Your task to perform on an android device: visit the assistant section in the google photos Image 0: 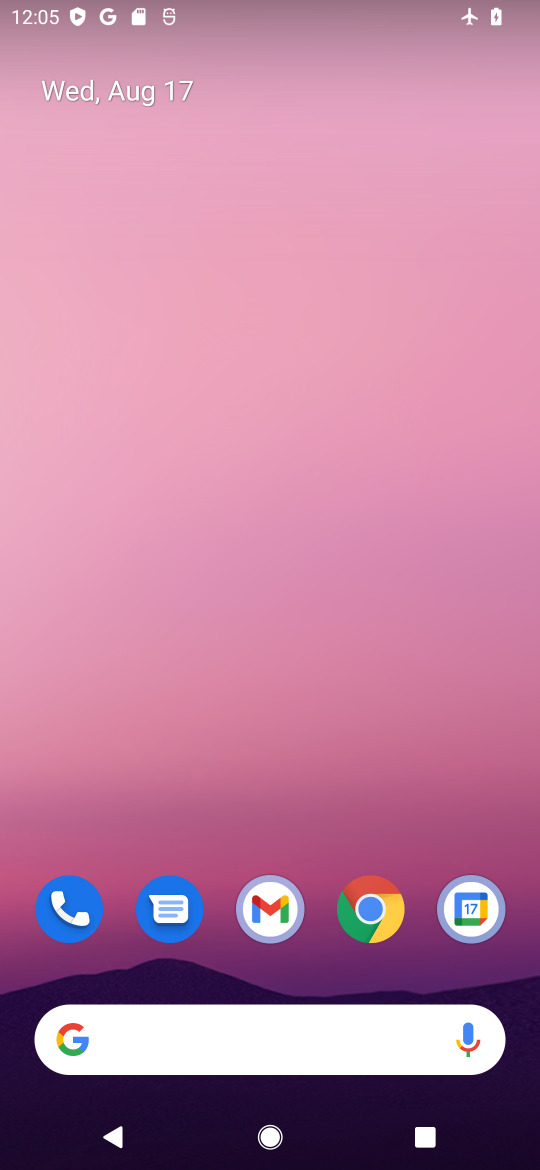
Step 0: drag from (282, 788) to (259, 185)
Your task to perform on an android device: visit the assistant section in the google photos Image 1: 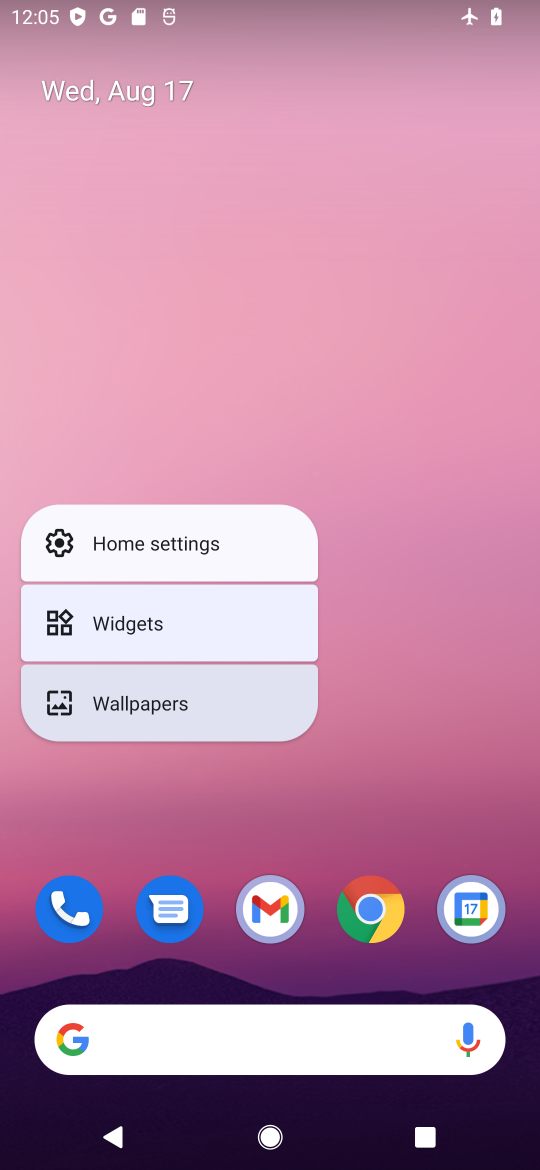
Step 1: drag from (330, 974) to (247, 291)
Your task to perform on an android device: visit the assistant section in the google photos Image 2: 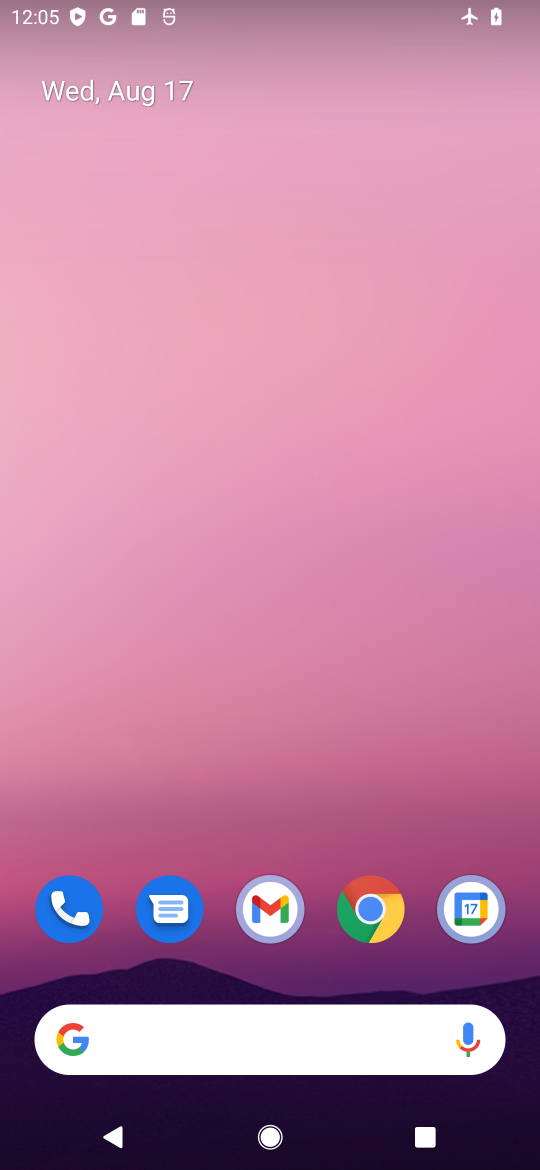
Step 2: drag from (308, 966) to (240, 393)
Your task to perform on an android device: visit the assistant section in the google photos Image 3: 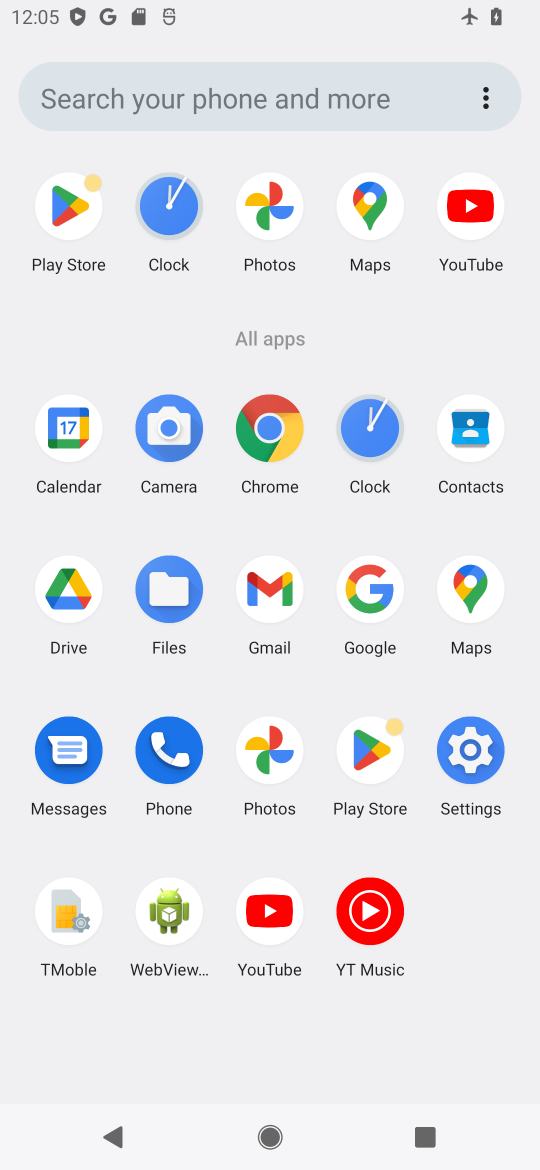
Step 3: click (274, 208)
Your task to perform on an android device: visit the assistant section in the google photos Image 4: 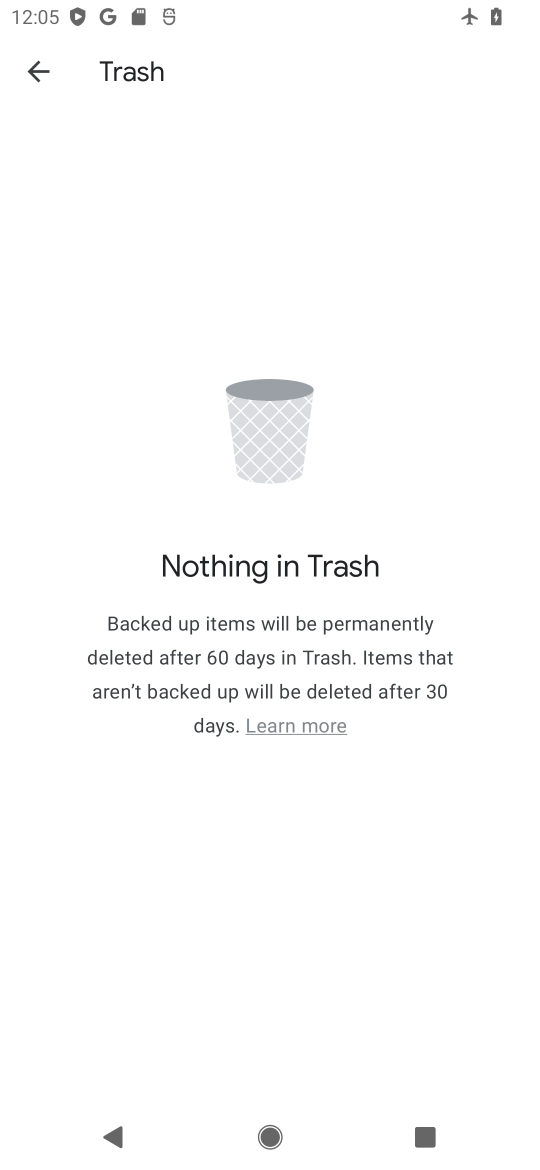
Step 4: click (41, 62)
Your task to perform on an android device: visit the assistant section in the google photos Image 5: 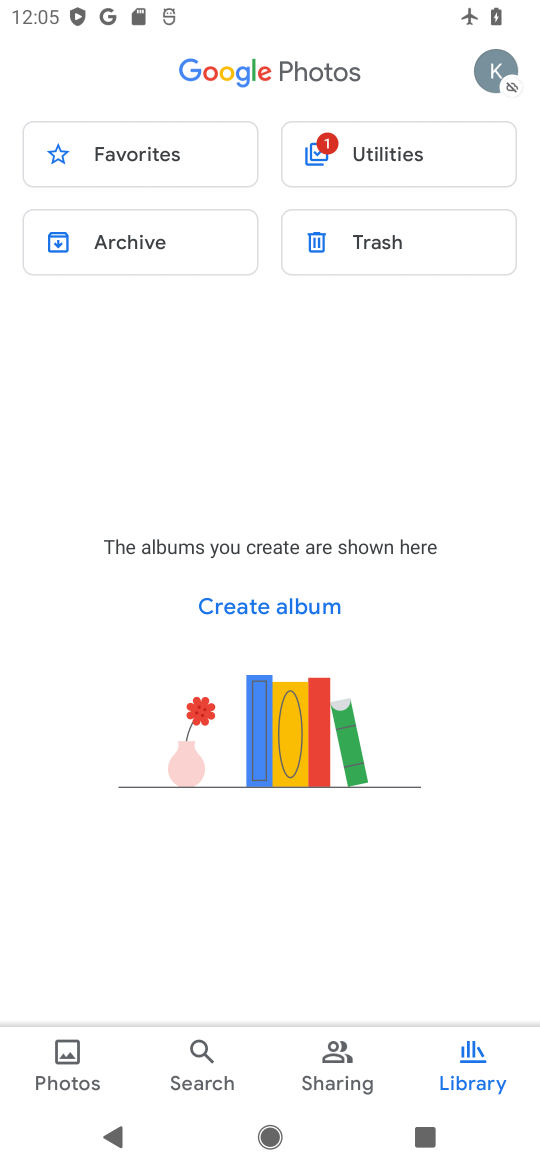
Step 5: click (197, 1057)
Your task to perform on an android device: visit the assistant section in the google photos Image 6: 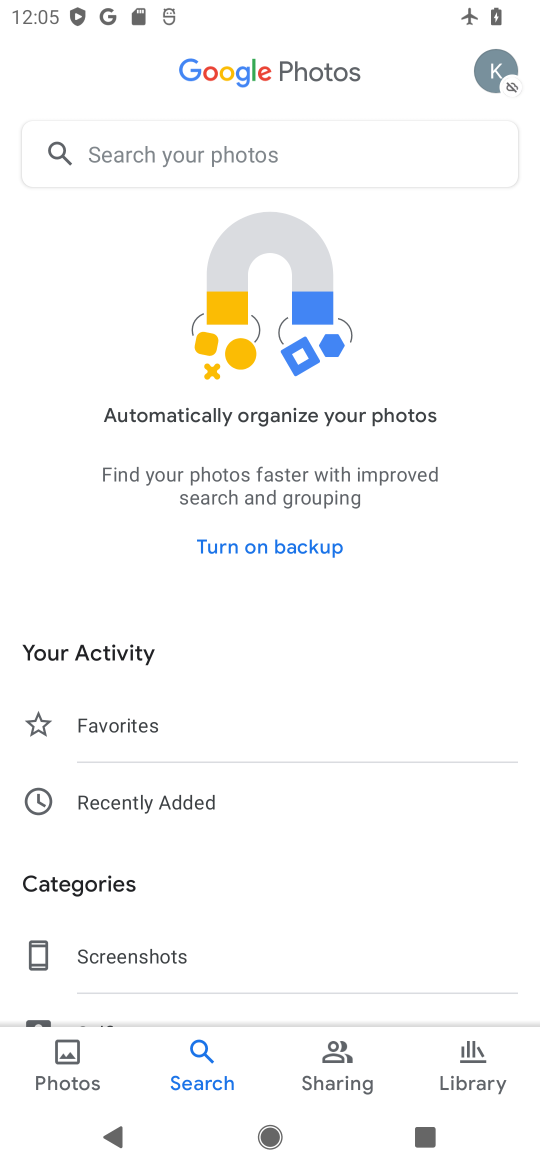
Step 6: click (129, 154)
Your task to perform on an android device: visit the assistant section in the google photos Image 7: 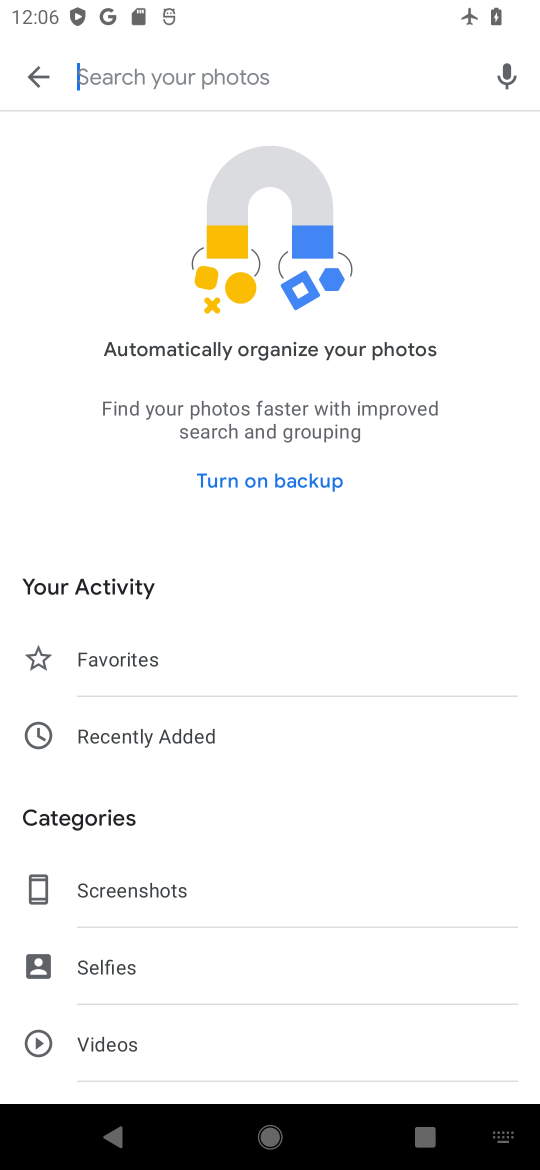
Step 7: type "assistant"
Your task to perform on an android device: visit the assistant section in the google photos Image 8: 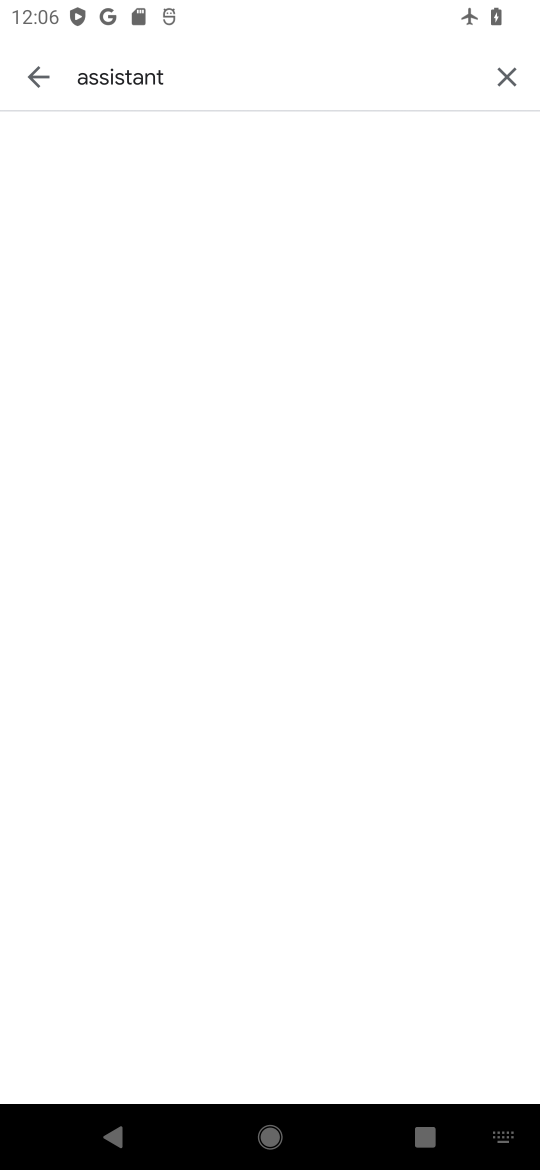
Step 8: click (206, 68)
Your task to perform on an android device: visit the assistant section in the google photos Image 9: 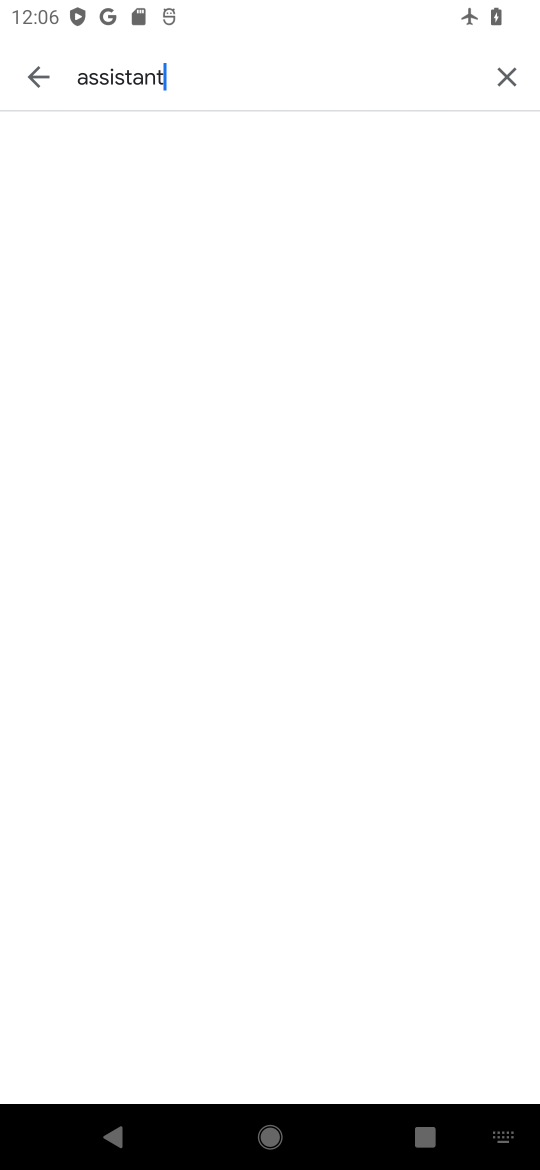
Step 9: task complete